Your task to perform on an android device: Open Google Chrome and click the shortcut for Amazon.com Image 0: 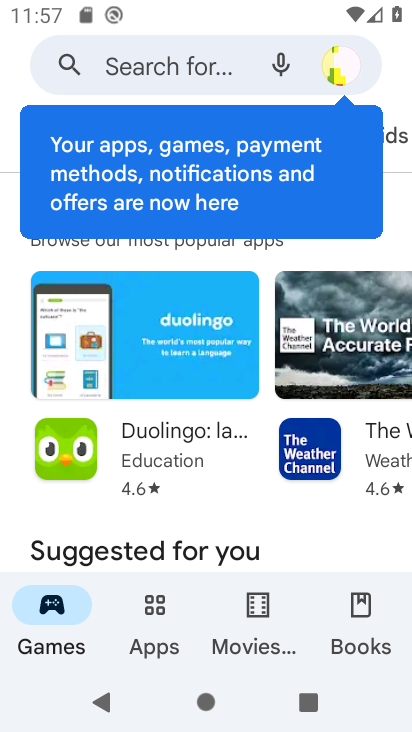
Step 0: press back button
Your task to perform on an android device: Open Google Chrome and click the shortcut for Amazon.com Image 1: 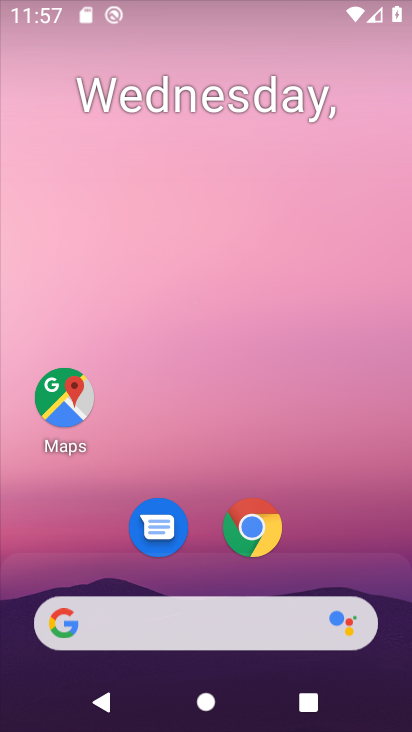
Step 1: click (262, 536)
Your task to perform on an android device: Open Google Chrome and click the shortcut for Amazon.com Image 2: 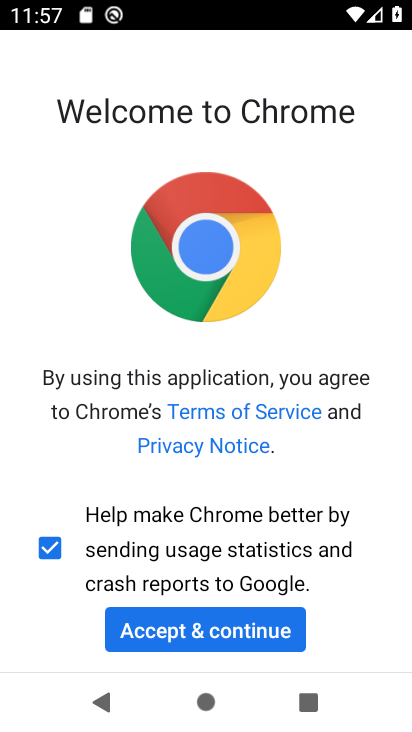
Step 2: click (279, 644)
Your task to perform on an android device: Open Google Chrome and click the shortcut for Amazon.com Image 3: 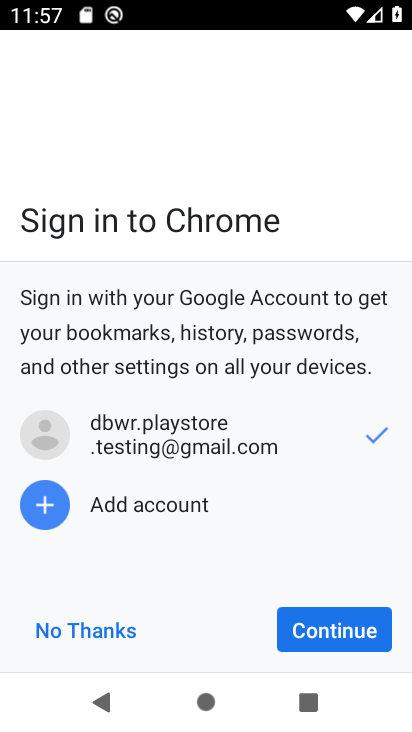
Step 3: click (333, 618)
Your task to perform on an android device: Open Google Chrome and click the shortcut for Amazon.com Image 4: 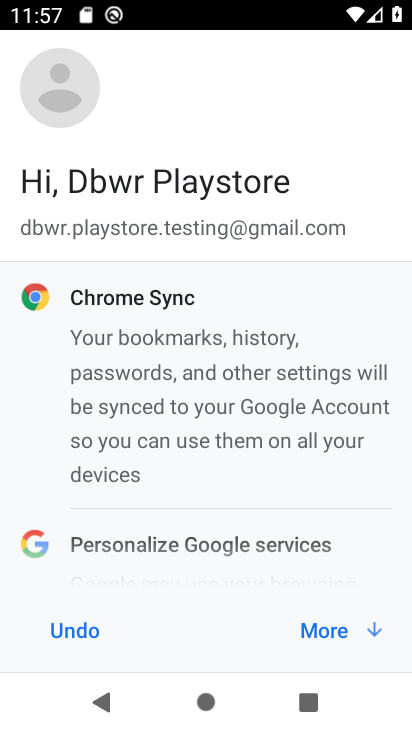
Step 4: click (335, 629)
Your task to perform on an android device: Open Google Chrome and click the shortcut for Amazon.com Image 5: 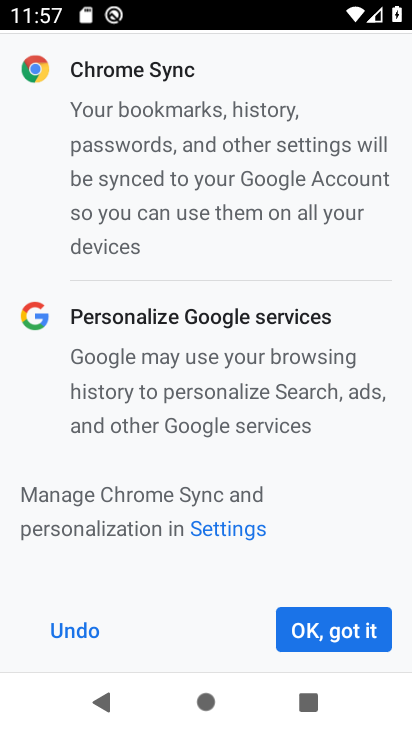
Step 5: click (336, 633)
Your task to perform on an android device: Open Google Chrome and click the shortcut for Amazon.com Image 6: 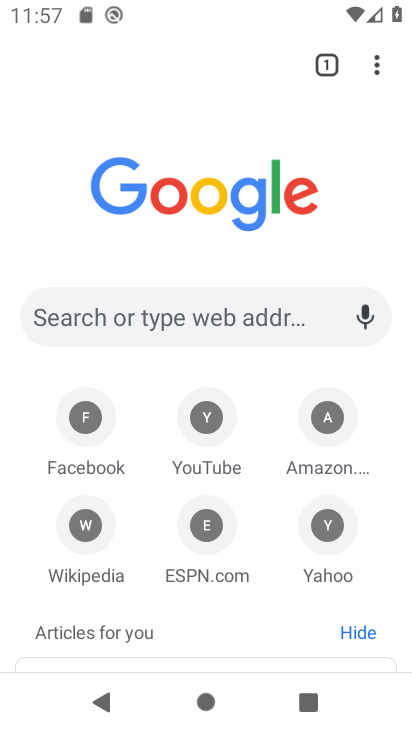
Step 6: click (326, 421)
Your task to perform on an android device: Open Google Chrome and click the shortcut for Amazon.com Image 7: 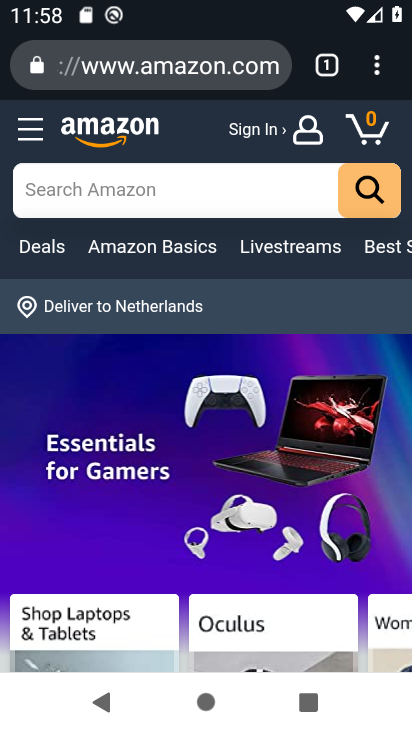
Step 7: task complete